Your task to perform on an android device: Go to Wikipedia Image 0: 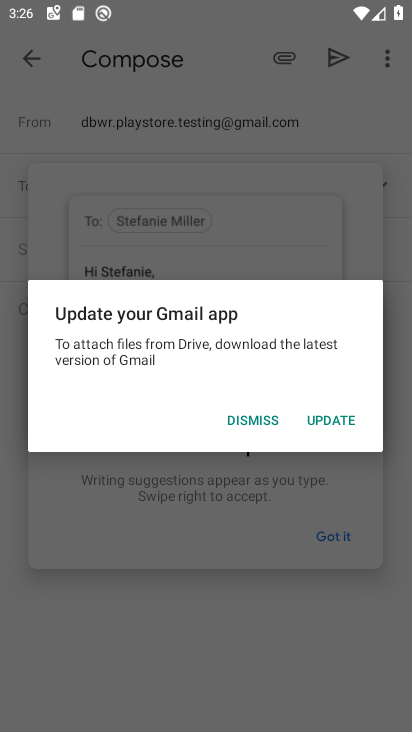
Step 0: press home button
Your task to perform on an android device: Go to Wikipedia Image 1: 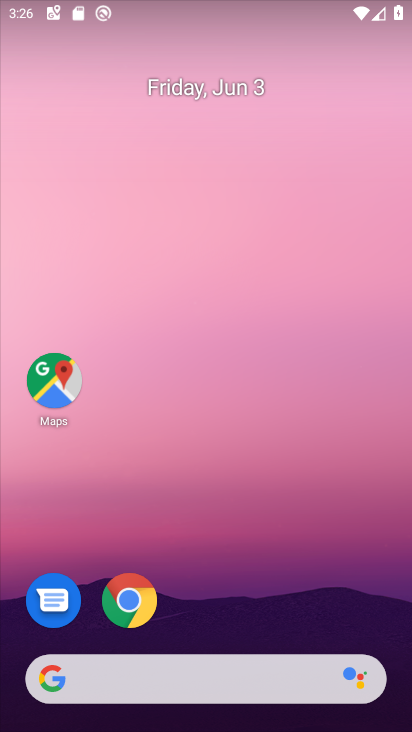
Step 1: click (133, 600)
Your task to perform on an android device: Go to Wikipedia Image 2: 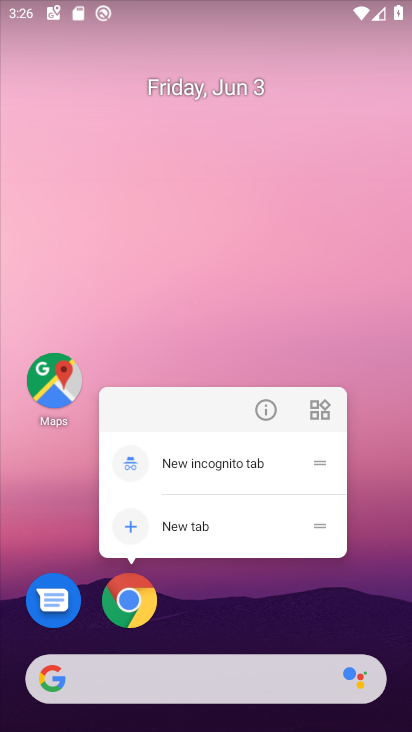
Step 2: click (133, 600)
Your task to perform on an android device: Go to Wikipedia Image 3: 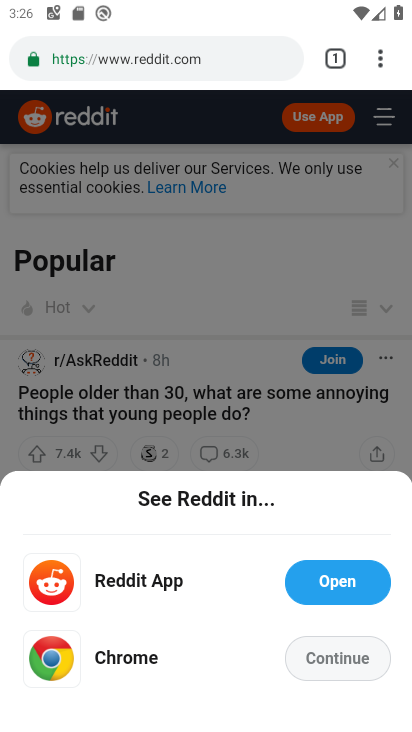
Step 3: click (138, 64)
Your task to perform on an android device: Go to Wikipedia Image 4: 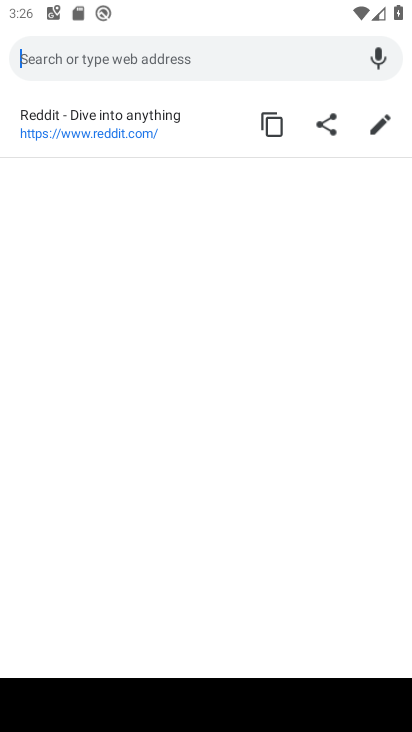
Step 4: type "wikipedia"
Your task to perform on an android device: Go to Wikipedia Image 5: 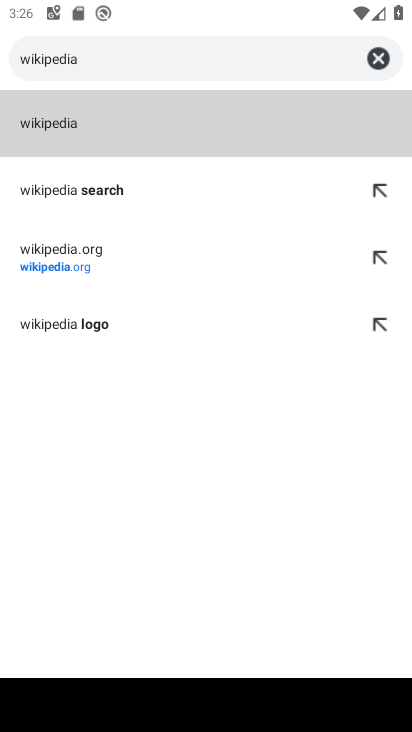
Step 5: click (45, 270)
Your task to perform on an android device: Go to Wikipedia Image 6: 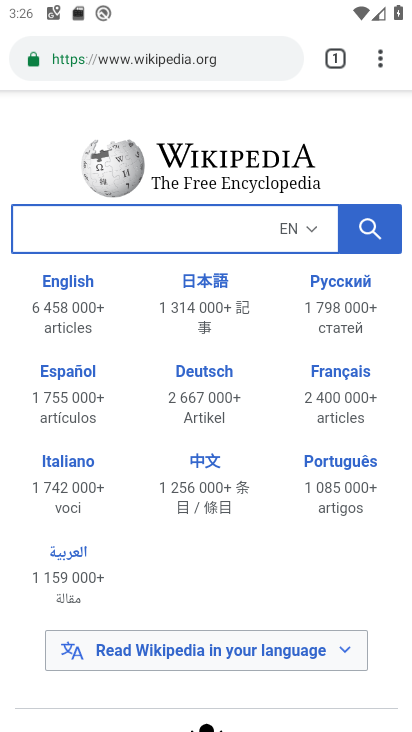
Step 6: task complete